Your task to perform on an android device: turn on wifi Image 0: 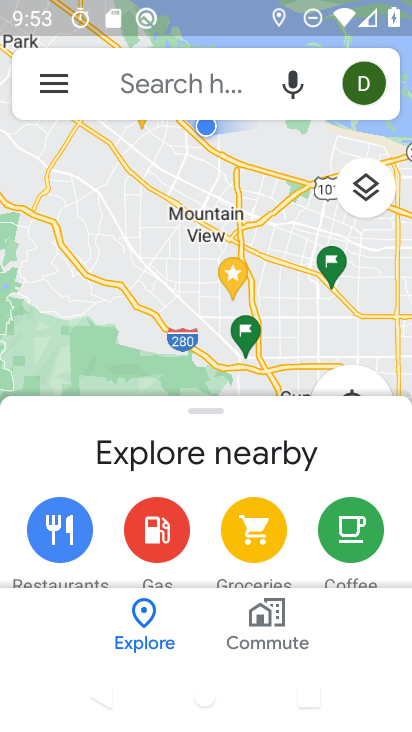
Step 0: press home button
Your task to perform on an android device: turn on wifi Image 1: 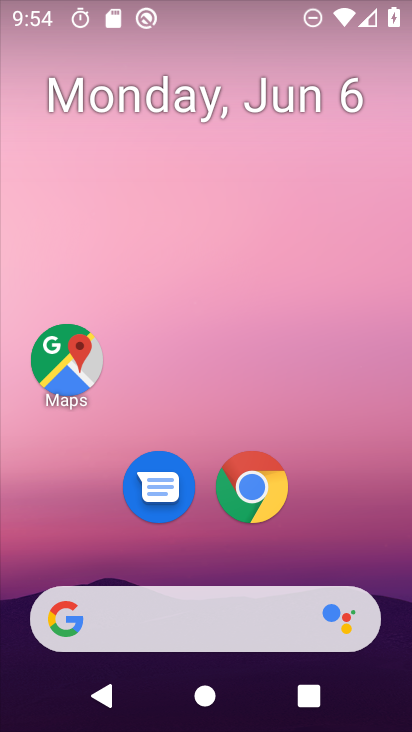
Step 1: task complete